Your task to perform on an android device: open device folders in google photos Image 0: 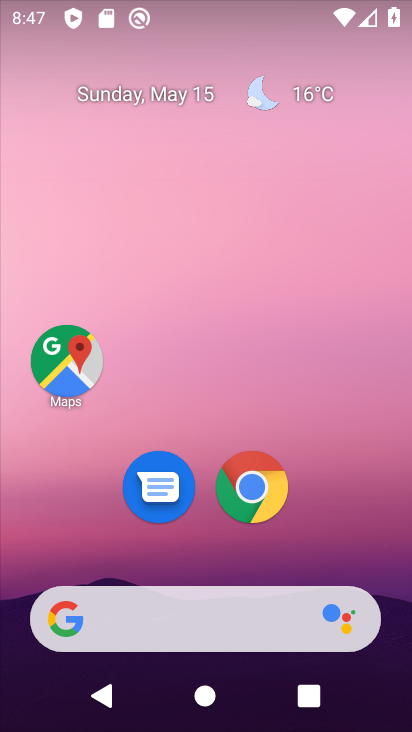
Step 0: drag from (397, 647) to (363, 123)
Your task to perform on an android device: open device folders in google photos Image 1: 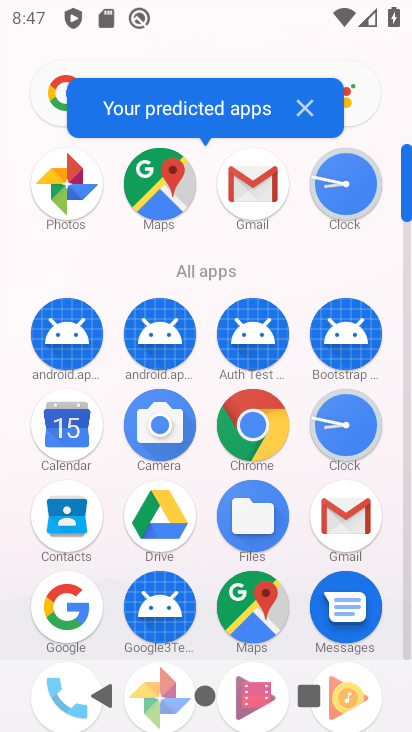
Step 1: click (407, 646)
Your task to perform on an android device: open device folders in google photos Image 2: 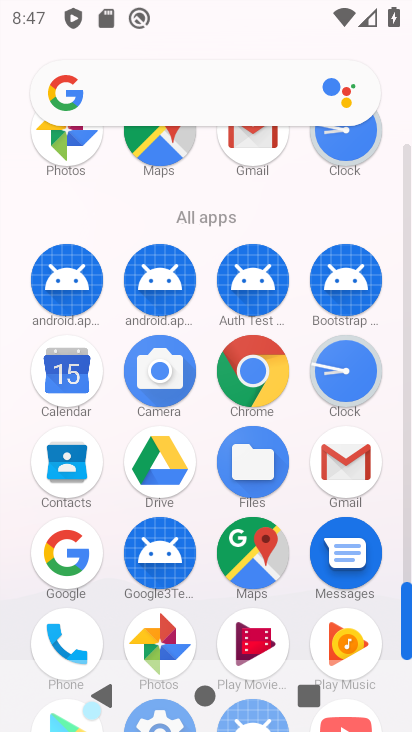
Step 2: click (156, 643)
Your task to perform on an android device: open device folders in google photos Image 3: 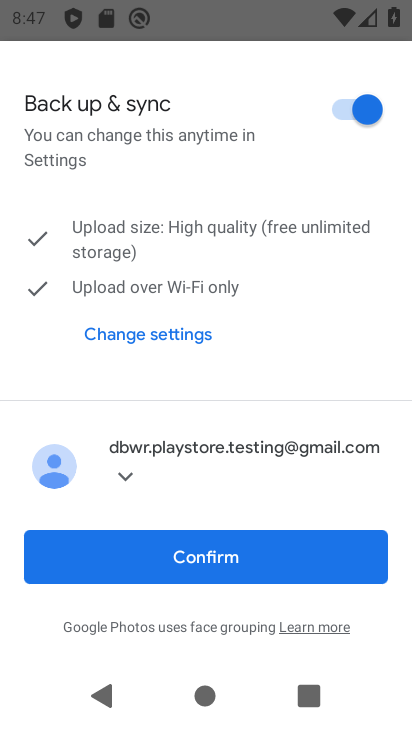
Step 3: click (207, 565)
Your task to perform on an android device: open device folders in google photos Image 4: 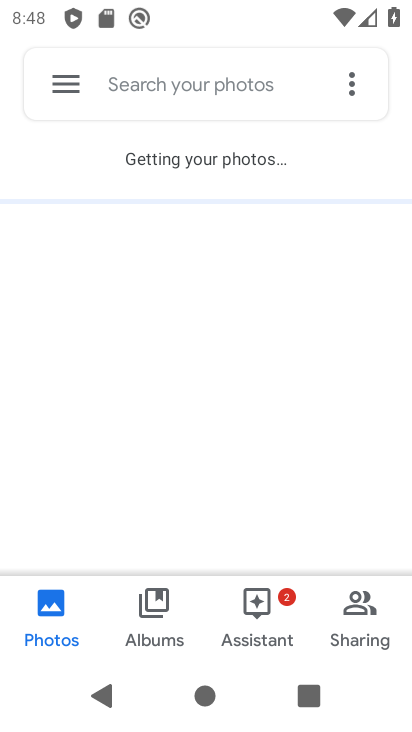
Step 4: task complete